Your task to perform on an android device: Search for razer blade on amazon.com, select the first entry, and add it to the cart. Image 0: 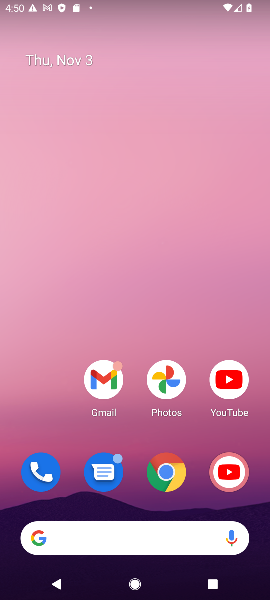
Step 0: click (165, 473)
Your task to perform on an android device: Search for razer blade on amazon.com, select the first entry, and add it to the cart. Image 1: 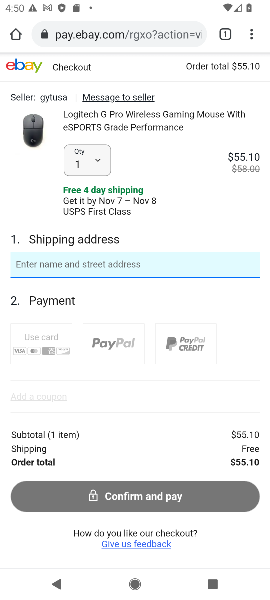
Step 1: click (106, 25)
Your task to perform on an android device: Search for razer blade on amazon.com, select the first entry, and add it to the cart. Image 2: 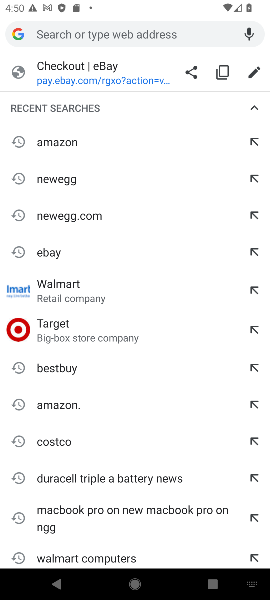
Step 2: type "amazon.com"
Your task to perform on an android device: Search for razer blade on amazon.com, select the first entry, and add it to the cart. Image 3: 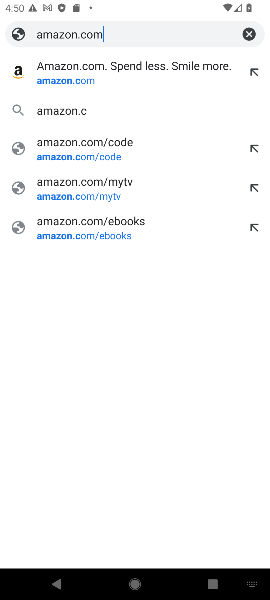
Step 3: type ""
Your task to perform on an android device: Search for razer blade on amazon.com, select the first entry, and add it to the cart. Image 4: 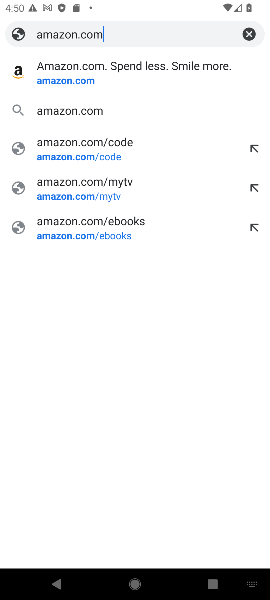
Step 4: click (101, 74)
Your task to perform on an android device: Search for razer blade on amazon.com, select the first entry, and add it to the cart. Image 5: 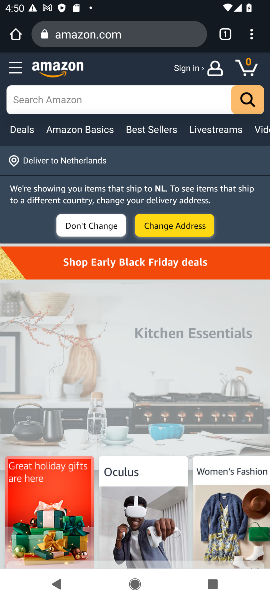
Step 5: click (86, 219)
Your task to perform on an android device: Search for razer blade on amazon.com, select the first entry, and add it to the cart. Image 6: 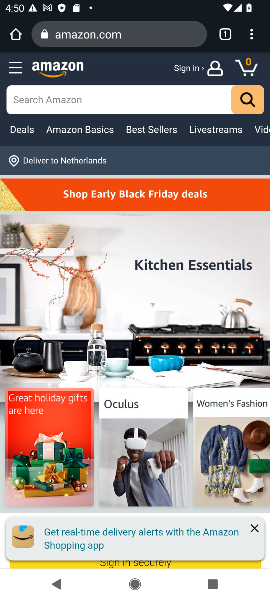
Step 6: click (77, 99)
Your task to perform on an android device: Search for razer blade on amazon.com, select the first entry, and add it to the cart. Image 7: 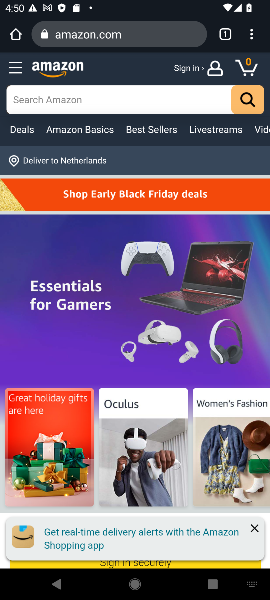
Step 7: type "razer blade"
Your task to perform on an android device: Search for razer blade on amazon.com, select the first entry, and add it to the cart. Image 8: 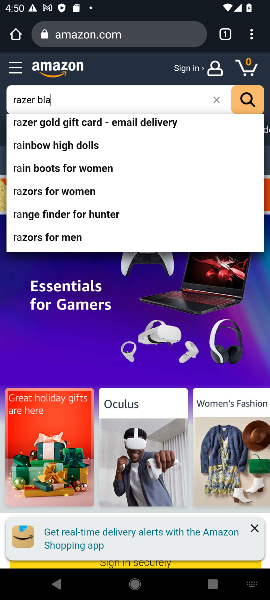
Step 8: type ""
Your task to perform on an android device: Search for razer blade on amazon.com, select the first entry, and add it to the cart. Image 9: 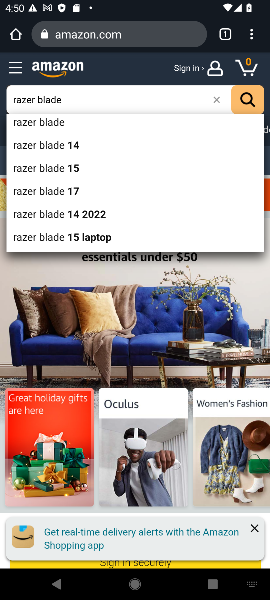
Step 9: click (47, 121)
Your task to perform on an android device: Search for razer blade on amazon.com, select the first entry, and add it to the cart. Image 10: 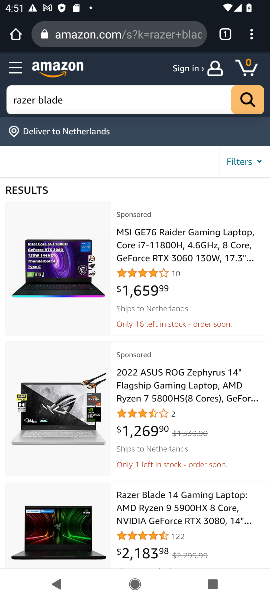
Step 10: click (165, 528)
Your task to perform on an android device: Search for razer blade on amazon.com, select the first entry, and add it to the cart. Image 11: 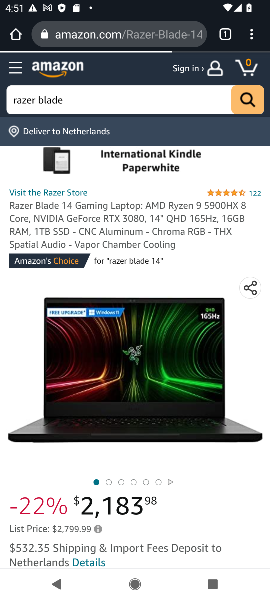
Step 11: drag from (136, 458) to (150, 211)
Your task to perform on an android device: Search for razer blade on amazon.com, select the first entry, and add it to the cart. Image 12: 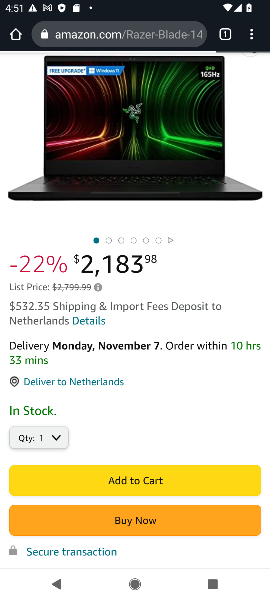
Step 12: click (150, 484)
Your task to perform on an android device: Search for razer blade on amazon.com, select the first entry, and add it to the cart. Image 13: 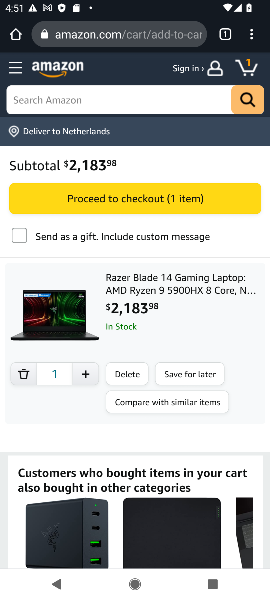
Step 13: click (102, 211)
Your task to perform on an android device: Search for razer blade on amazon.com, select the first entry, and add it to the cart. Image 14: 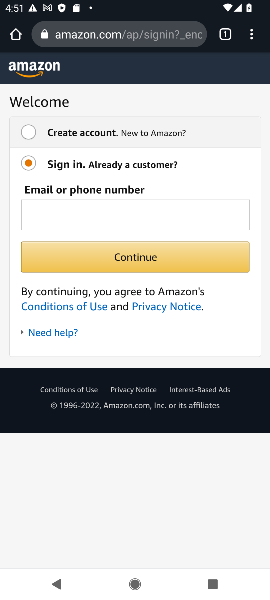
Step 14: task complete